Your task to perform on an android device: turn pop-ups off in chrome Image 0: 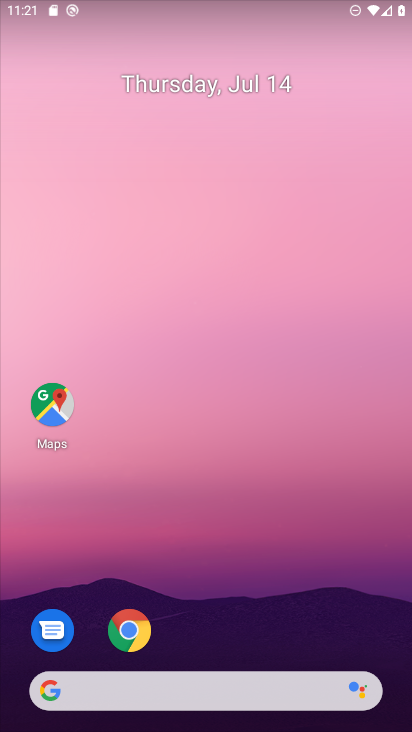
Step 0: drag from (257, 600) to (197, 14)
Your task to perform on an android device: turn pop-ups off in chrome Image 1: 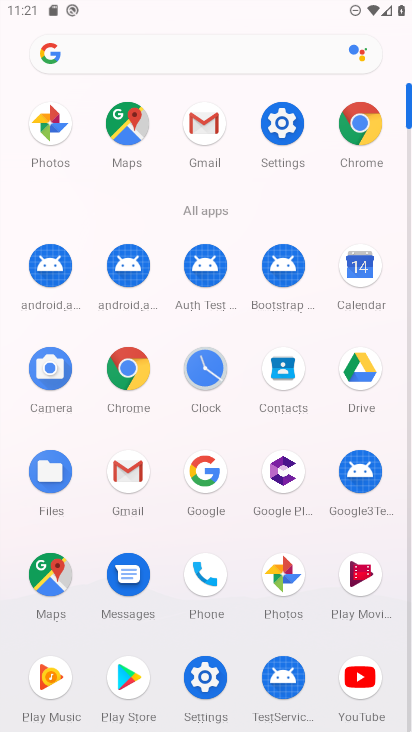
Step 1: click (369, 131)
Your task to perform on an android device: turn pop-ups off in chrome Image 2: 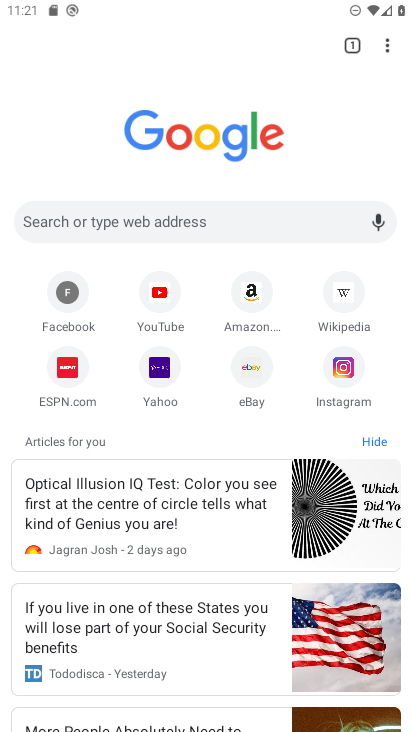
Step 2: drag from (392, 55) to (221, 372)
Your task to perform on an android device: turn pop-ups off in chrome Image 3: 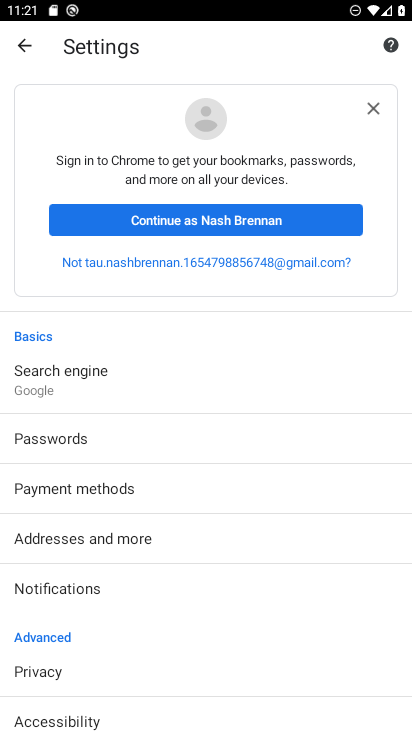
Step 3: drag from (166, 637) to (408, 86)
Your task to perform on an android device: turn pop-ups off in chrome Image 4: 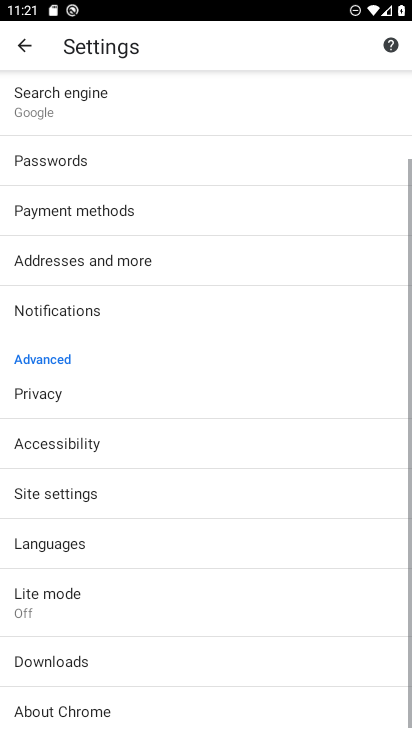
Step 4: click (117, 492)
Your task to perform on an android device: turn pop-ups off in chrome Image 5: 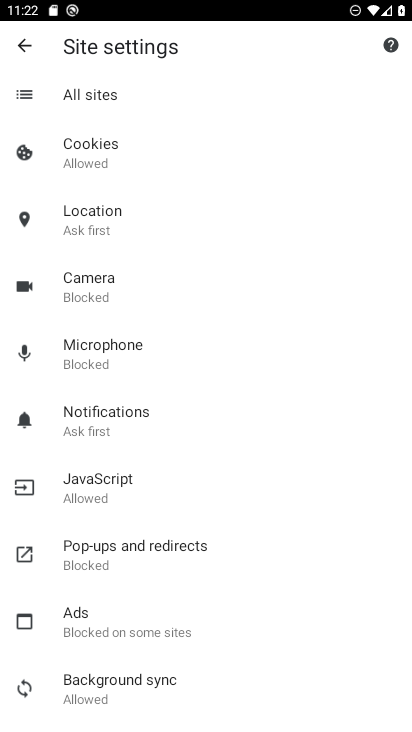
Step 5: click (77, 551)
Your task to perform on an android device: turn pop-ups off in chrome Image 6: 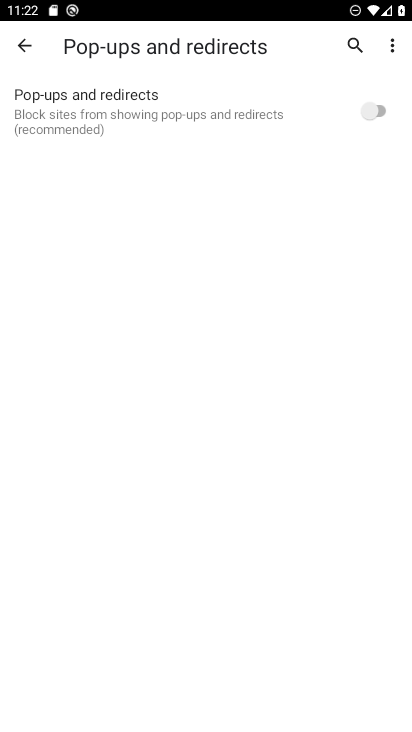
Step 6: task complete